Your task to perform on an android device: turn off wifi Image 0: 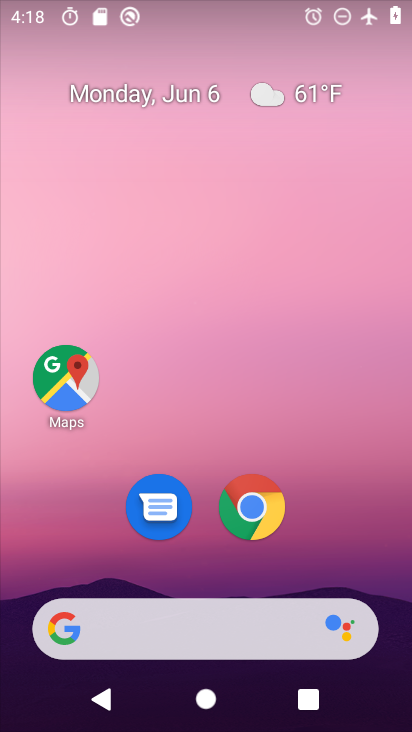
Step 0: drag from (233, 557) to (257, 172)
Your task to perform on an android device: turn off wifi Image 1: 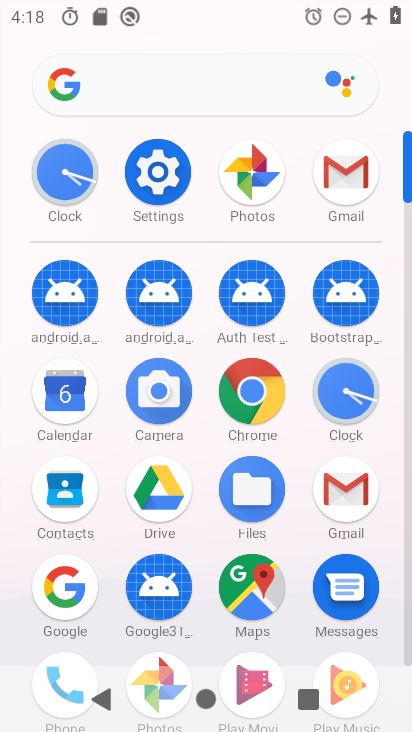
Step 1: click (162, 185)
Your task to perform on an android device: turn off wifi Image 2: 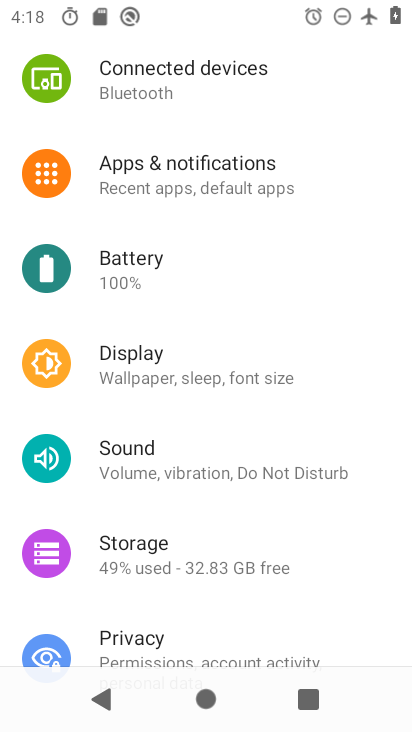
Step 2: drag from (206, 110) to (223, 506)
Your task to perform on an android device: turn off wifi Image 3: 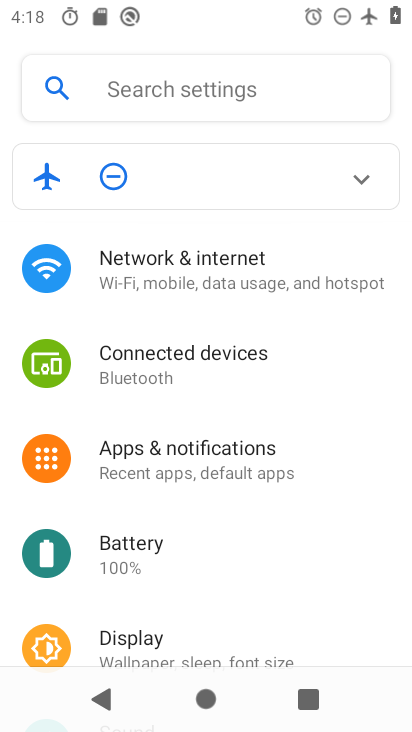
Step 3: click (165, 278)
Your task to perform on an android device: turn off wifi Image 4: 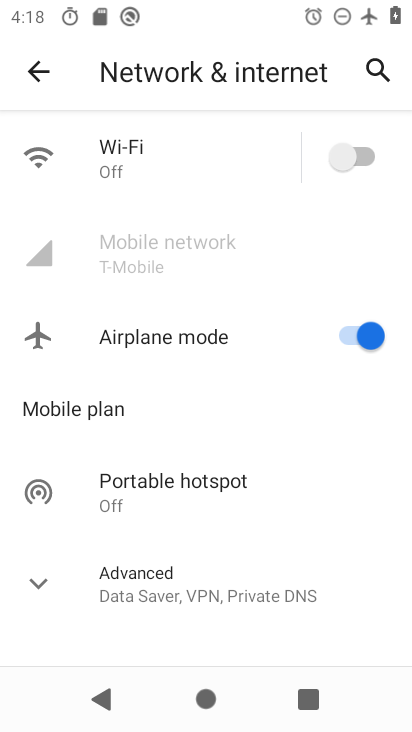
Step 4: task complete